Your task to perform on an android device: open a new tab in the chrome app Image 0: 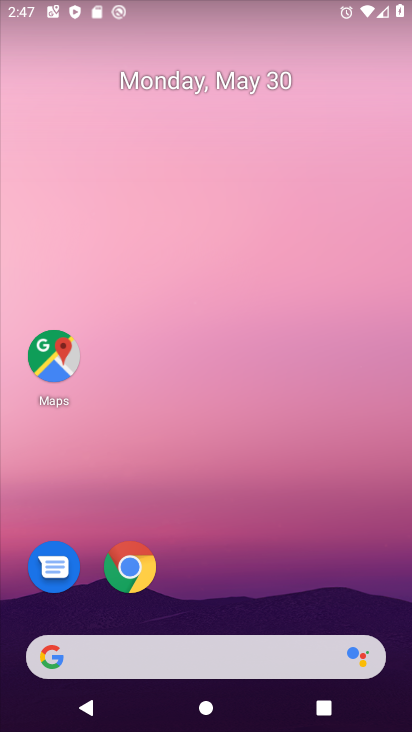
Step 0: click (127, 572)
Your task to perform on an android device: open a new tab in the chrome app Image 1: 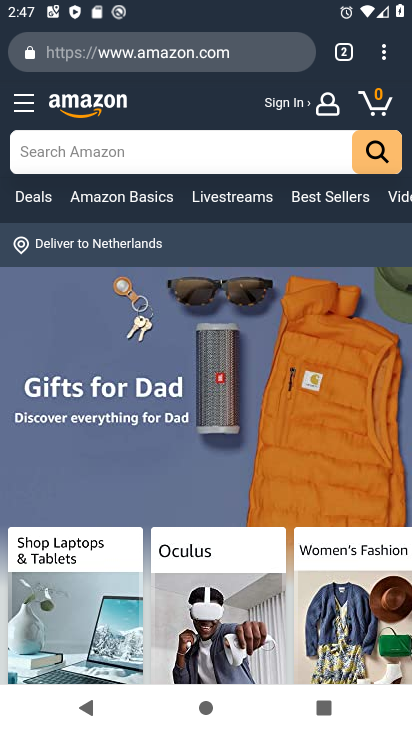
Step 1: click (375, 67)
Your task to perform on an android device: open a new tab in the chrome app Image 2: 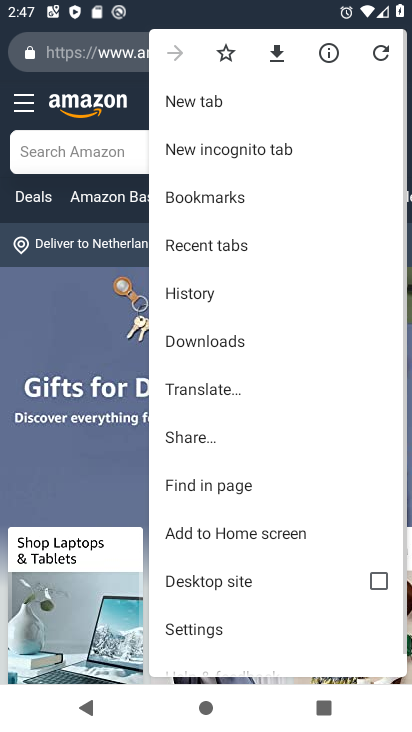
Step 2: click (204, 102)
Your task to perform on an android device: open a new tab in the chrome app Image 3: 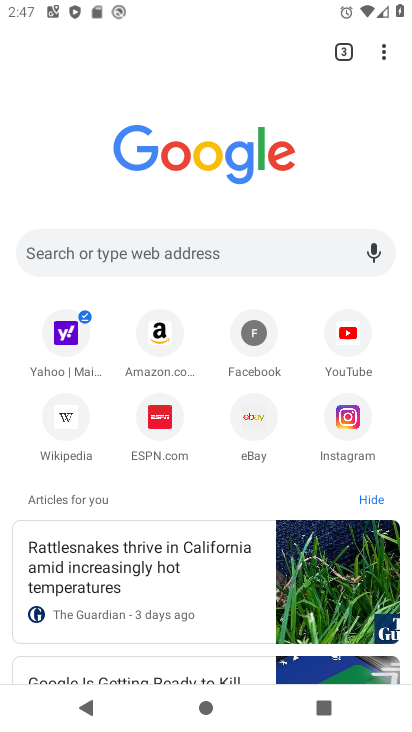
Step 3: task complete